Your task to perform on an android device: See recent photos Image 0: 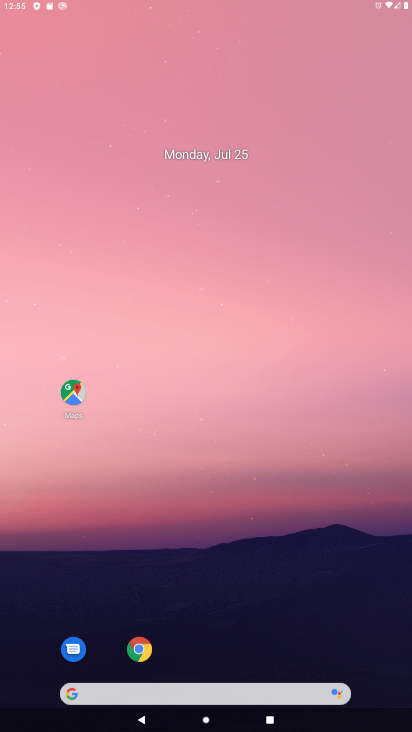
Step 0: press home button
Your task to perform on an android device: See recent photos Image 1: 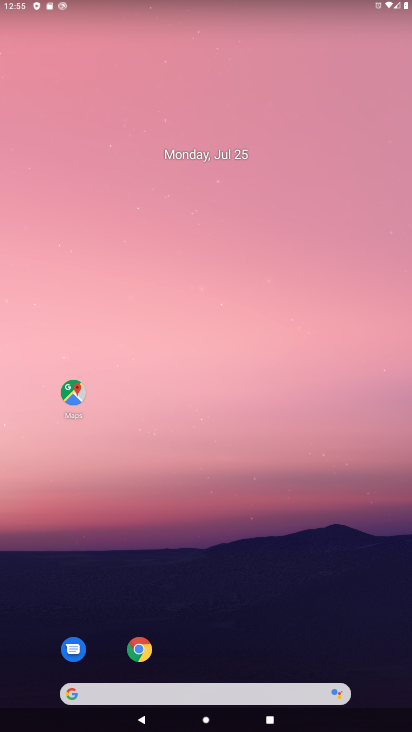
Step 1: press home button
Your task to perform on an android device: See recent photos Image 2: 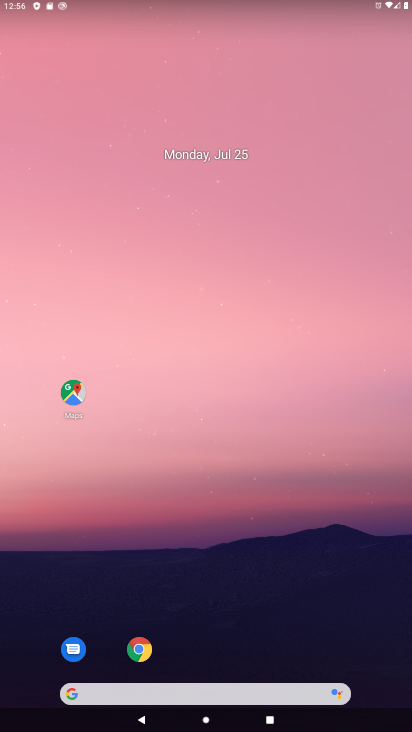
Step 2: drag from (273, 589) to (292, 154)
Your task to perform on an android device: See recent photos Image 3: 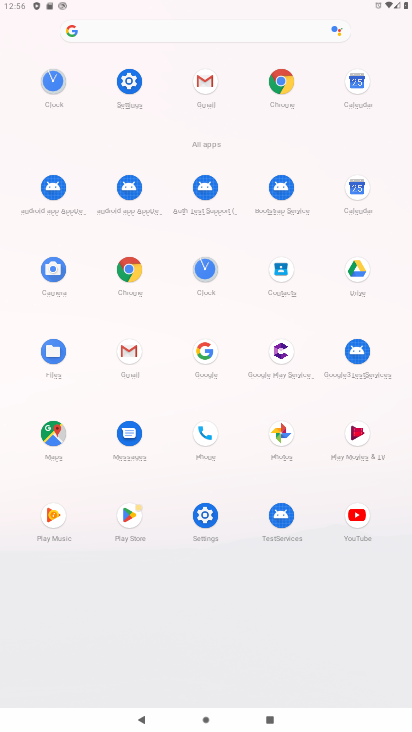
Step 3: click (276, 426)
Your task to perform on an android device: See recent photos Image 4: 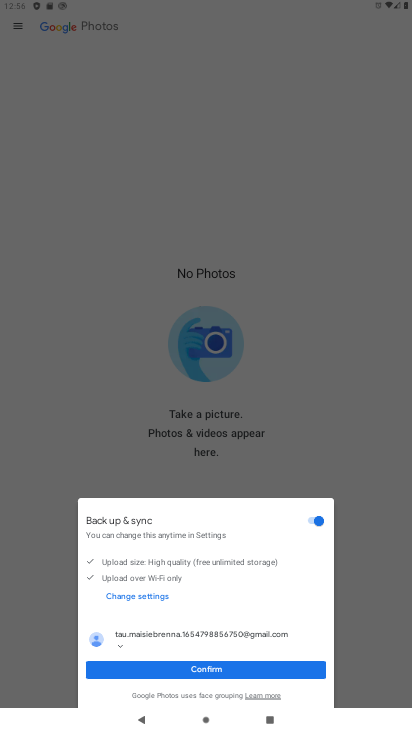
Step 4: click (204, 672)
Your task to perform on an android device: See recent photos Image 5: 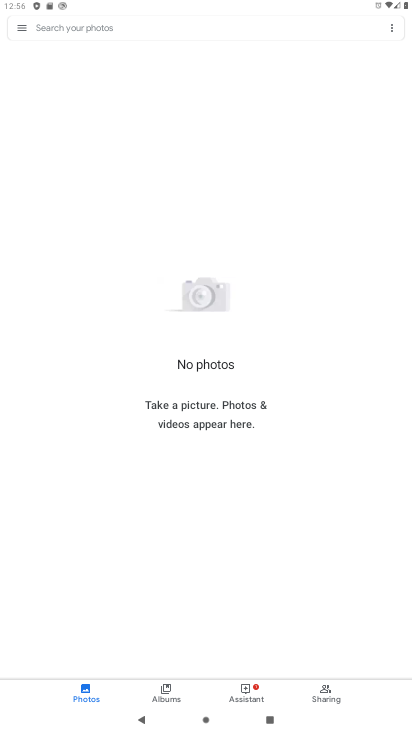
Step 5: task complete